Your task to perform on an android device: install app "Nova Launcher" Image 0: 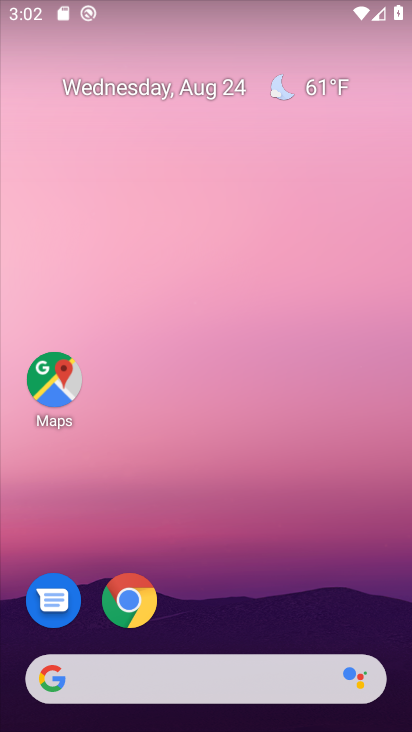
Step 0: drag from (250, 619) to (322, 21)
Your task to perform on an android device: install app "Nova Launcher" Image 1: 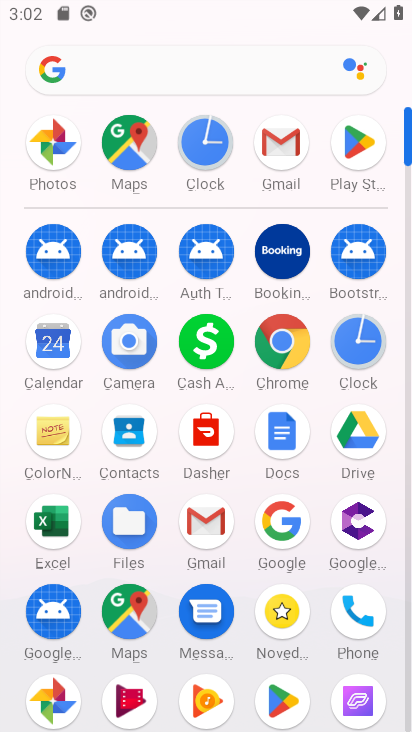
Step 1: click (349, 152)
Your task to perform on an android device: install app "Nova Launcher" Image 2: 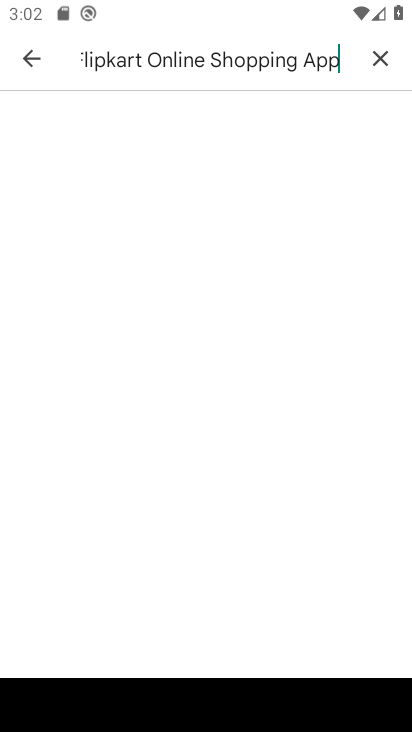
Step 2: click (386, 58)
Your task to perform on an android device: install app "Nova Launcher" Image 3: 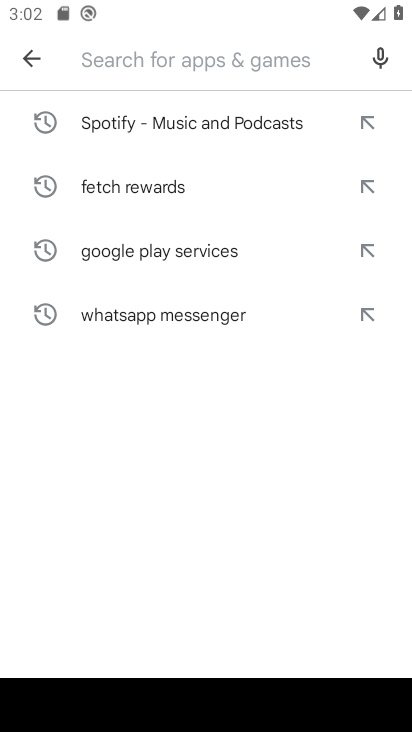
Step 3: click (193, 69)
Your task to perform on an android device: install app "Nova Launcher" Image 4: 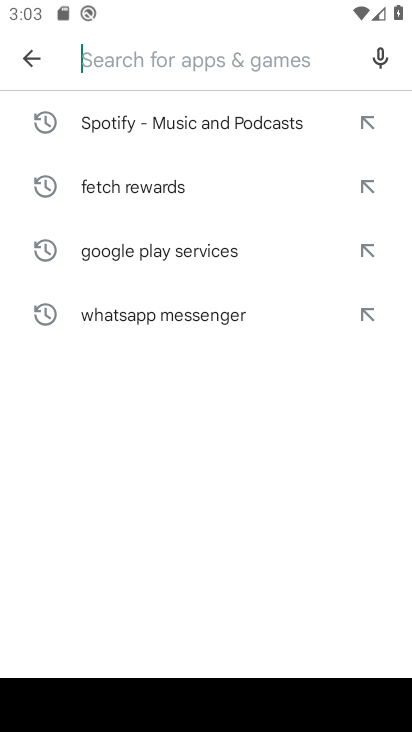
Step 4: type "nova launcher"
Your task to perform on an android device: install app "Nova Launcher" Image 5: 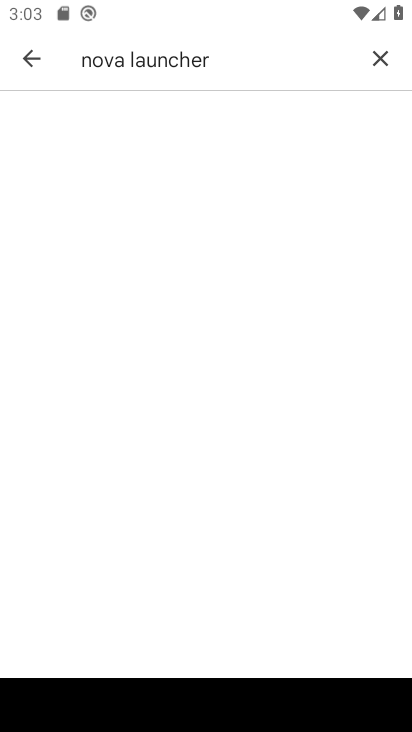
Step 5: click (392, 51)
Your task to perform on an android device: install app "Nova Launcher" Image 6: 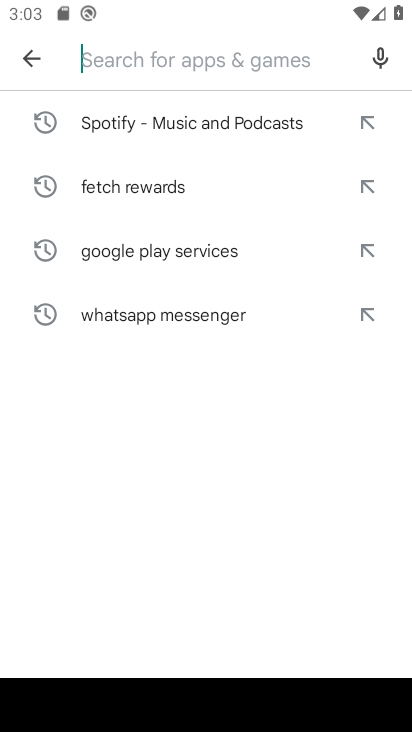
Step 6: click (254, 127)
Your task to perform on an android device: install app "Nova Launcher" Image 7: 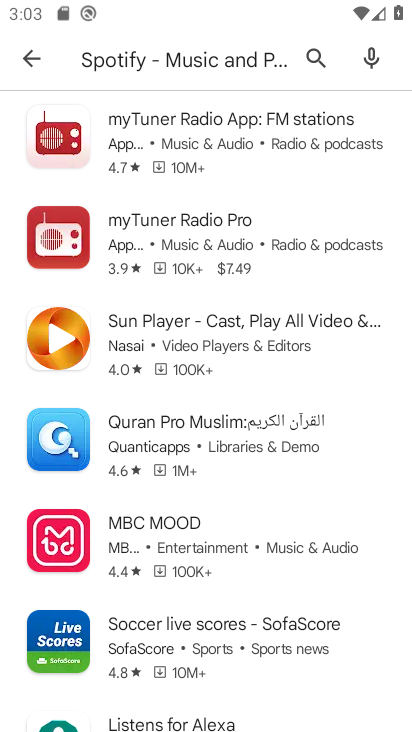
Step 7: click (296, 60)
Your task to perform on an android device: install app "Nova Launcher" Image 8: 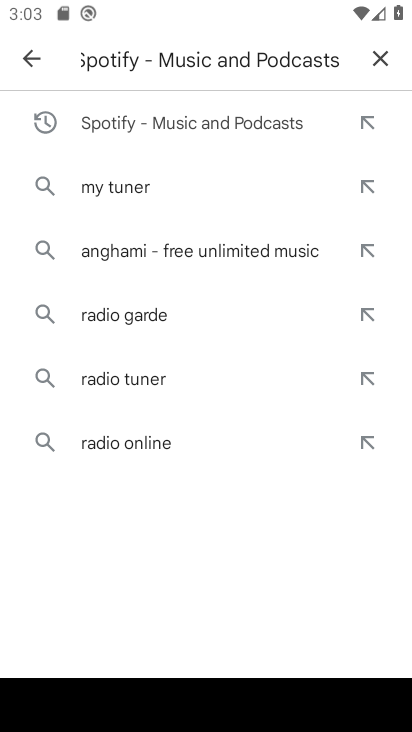
Step 8: click (377, 52)
Your task to perform on an android device: install app "Nova Launcher" Image 9: 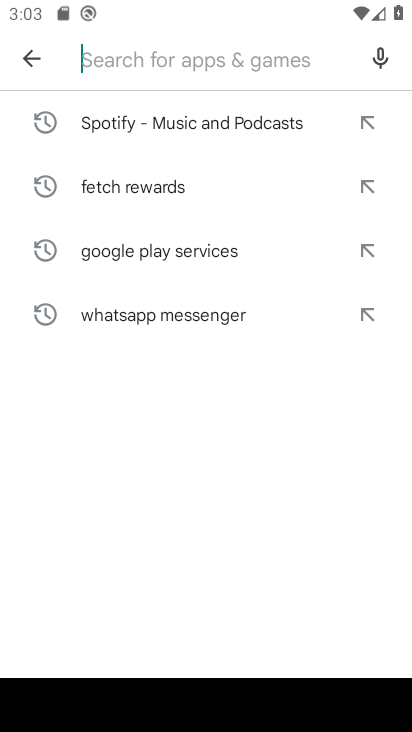
Step 9: click (173, 52)
Your task to perform on an android device: install app "Nova Launcher" Image 10: 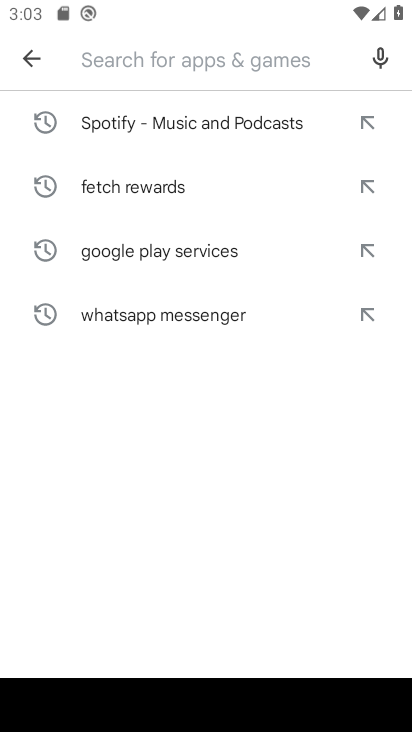
Step 10: type "Nova Launcher"
Your task to perform on an android device: install app "Nova Launcher" Image 11: 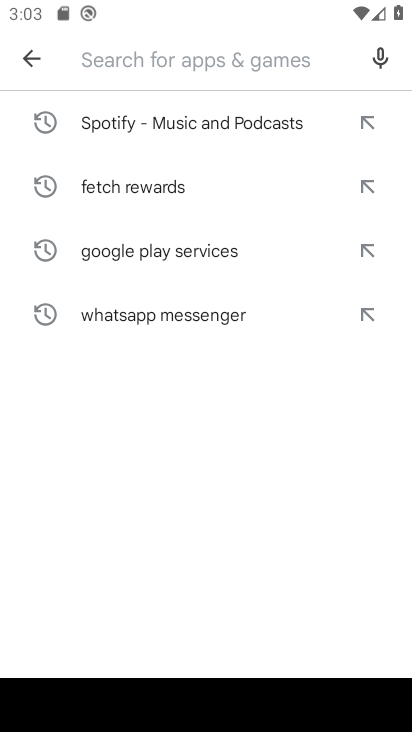
Step 11: click (175, 536)
Your task to perform on an android device: install app "Nova Launcher" Image 12: 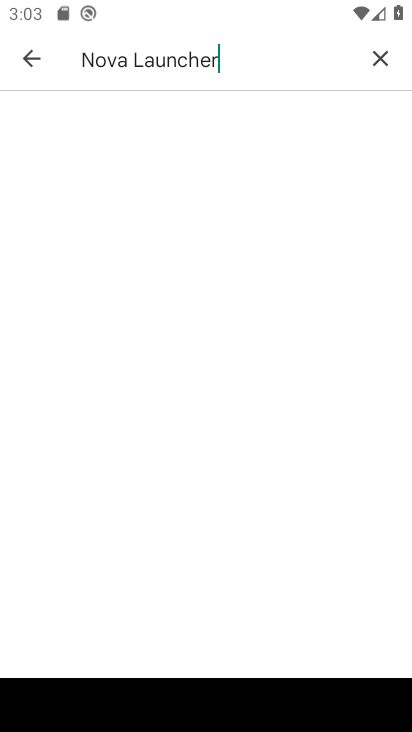
Step 12: task complete